Your task to perform on an android device: turn off javascript in the chrome app Image 0: 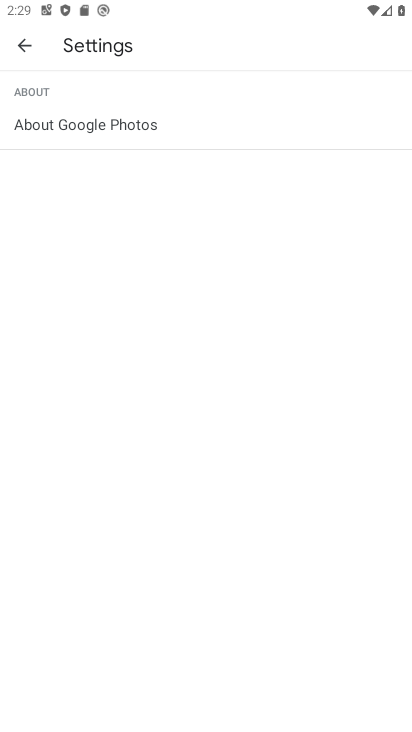
Step 0: press home button
Your task to perform on an android device: turn off javascript in the chrome app Image 1: 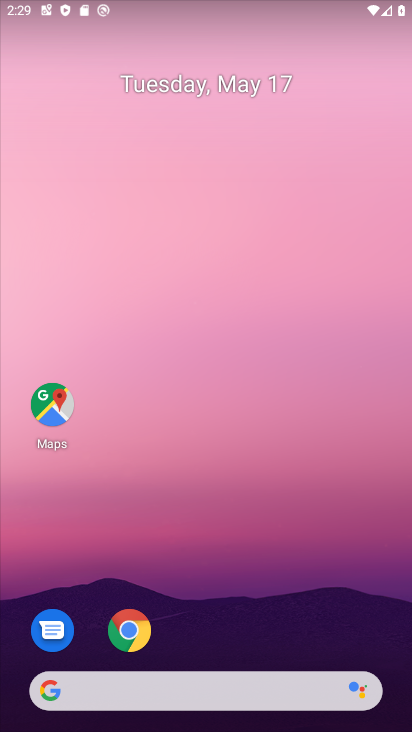
Step 1: click (127, 628)
Your task to perform on an android device: turn off javascript in the chrome app Image 2: 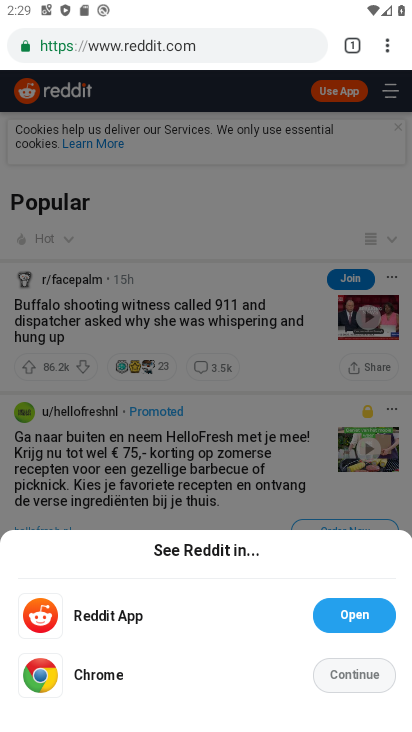
Step 2: click (385, 44)
Your task to perform on an android device: turn off javascript in the chrome app Image 3: 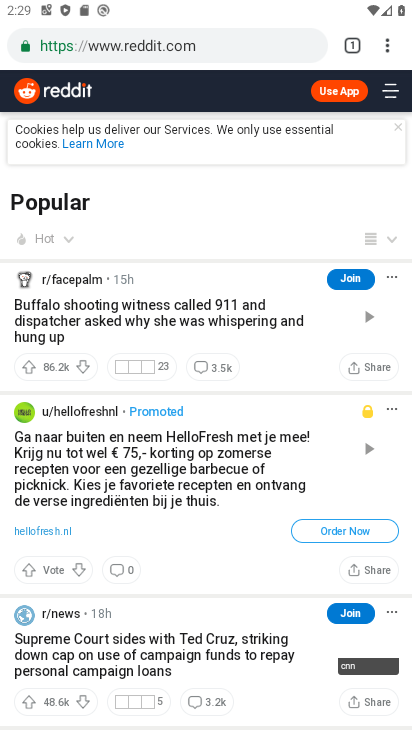
Step 3: click (386, 45)
Your task to perform on an android device: turn off javascript in the chrome app Image 4: 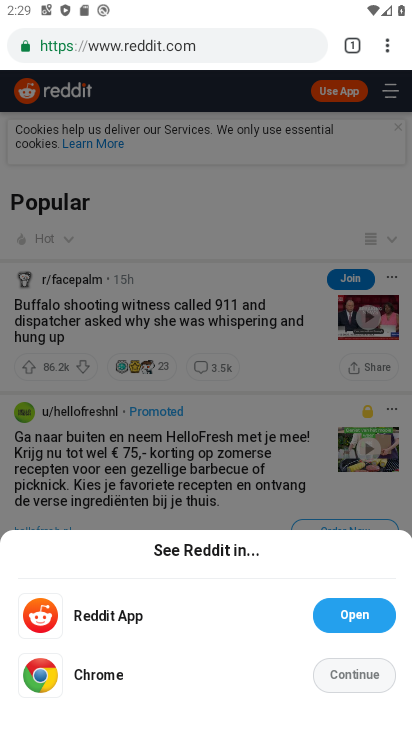
Step 4: click (386, 45)
Your task to perform on an android device: turn off javascript in the chrome app Image 5: 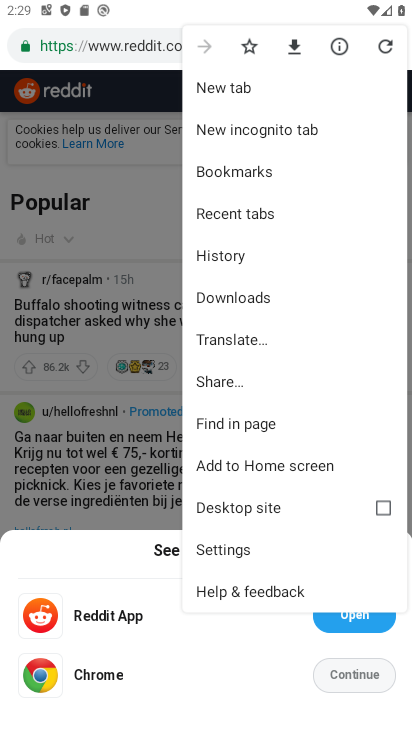
Step 5: click (208, 551)
Your task to perform on an android device: turn off javascript in the chrome app Image 6: 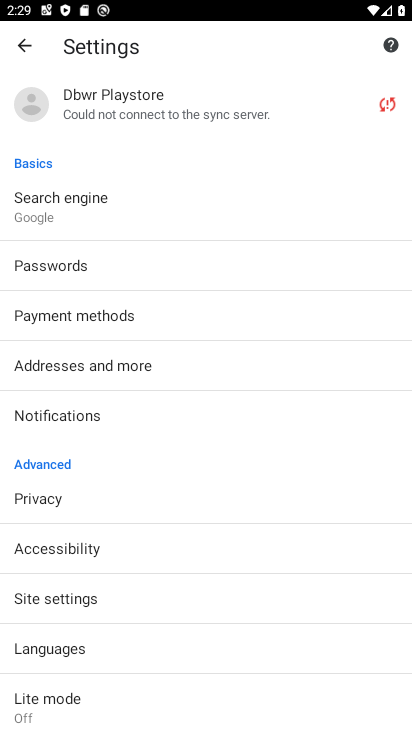
Step 6: click (66, 546)
Your task to perform on an android device: turn off javascript in the chrome app Image 7: 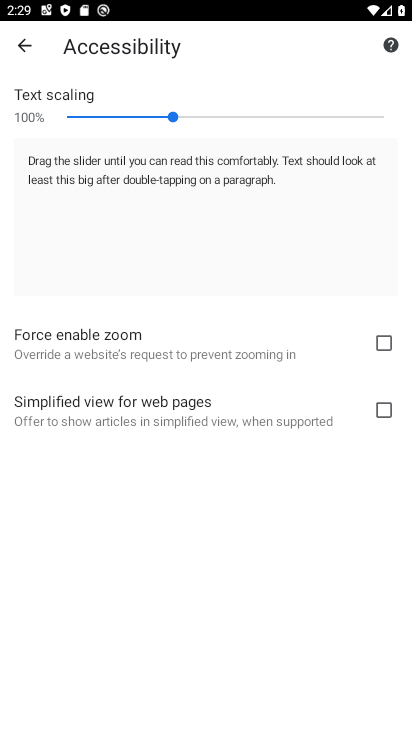
Step 7: click (22, 45)
Your task to perform on an android device: turn off javascript in the chrome app Image 8: 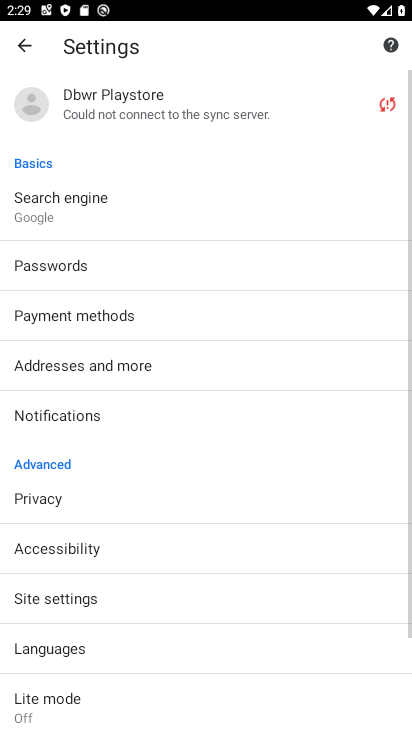
Step 8: click (71, 608)
Your task to perform on an android device: turn off javascript in the chrome app Image 9: 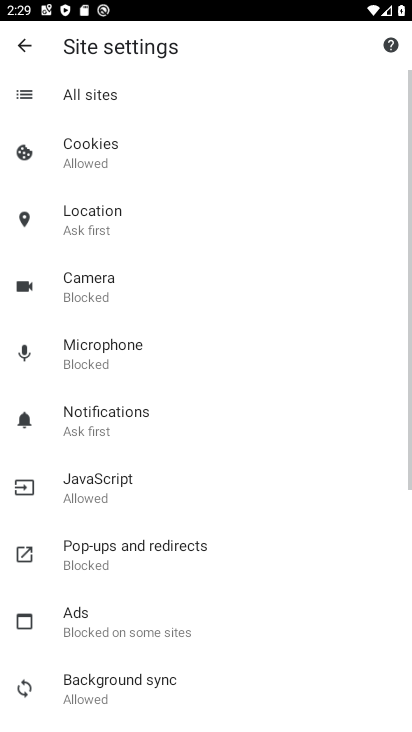
Step 9: click (112, 493)
Your task to perform on an android device: turn off javascript in the chrome app Image 10: 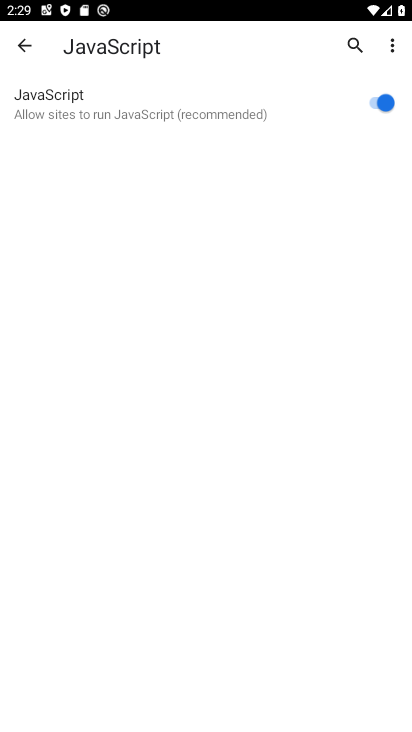
Step 10: click (383, 106)
Your task to perform on an android device: turn off javascript in the chrome app Image 11: 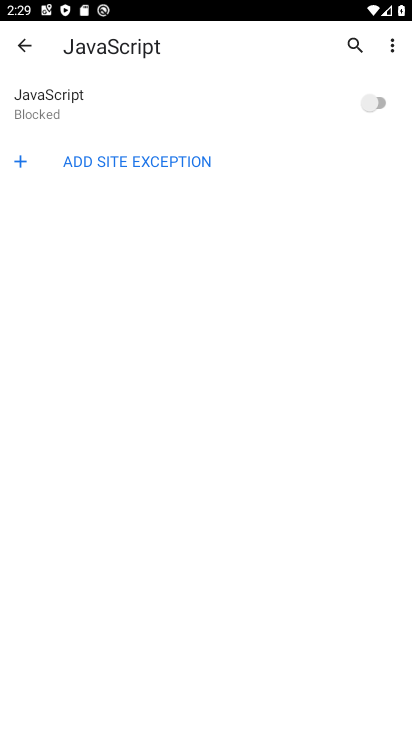
Step 11: task complete